Your task to perform on an android device: empty trash in google photos Image 0: 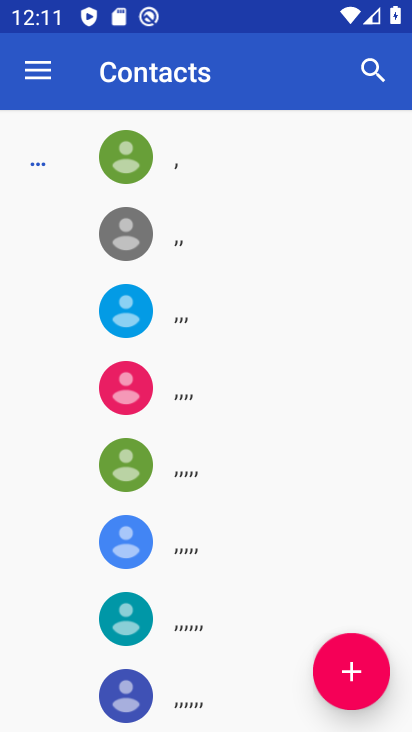
Step 0: task complete